Your task to perform on an android device: Open the stopwatch Image 0: 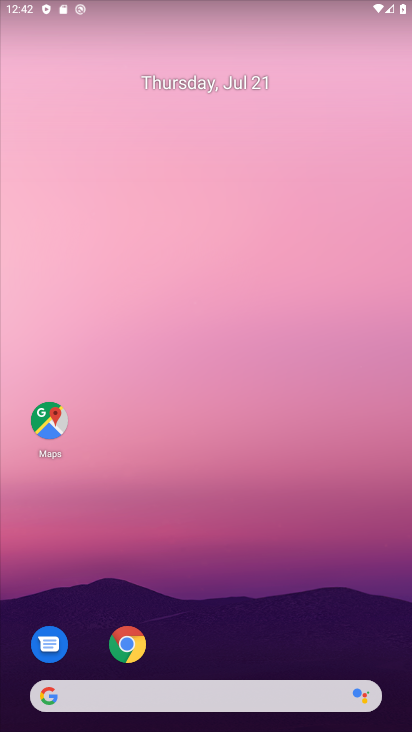
Step 0: drag from (192, 675) to (153, 97)
Your task to perform on an android device: Open the stopwatch Image 1: 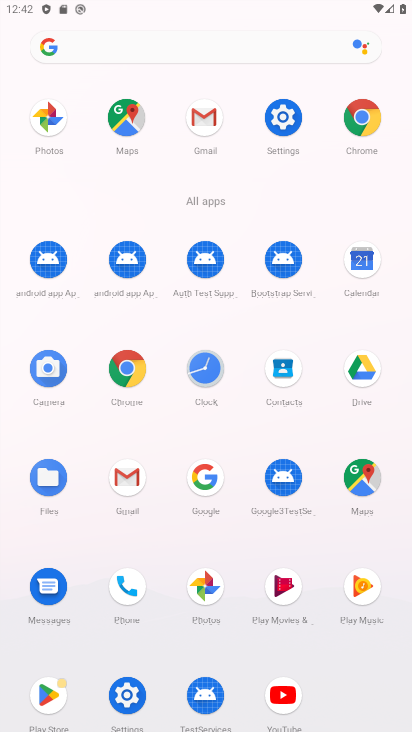
Step 1: click (206, 371)
Your task to perform on an android device: Open the stopwatch Image 2: 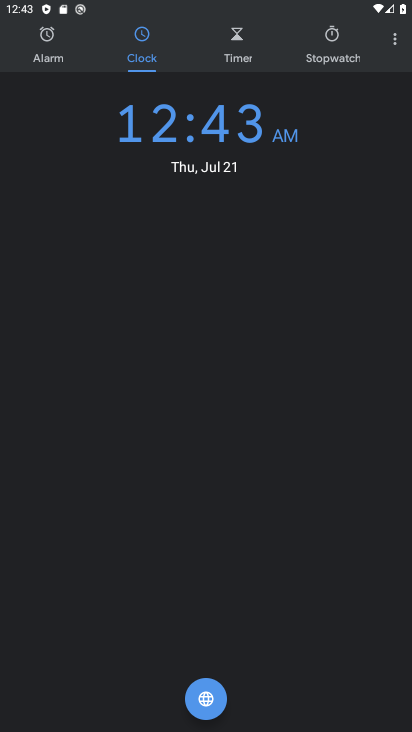
Step 2: click (319, 38)
Your task to perform on an android device: Open the stopwatch Image 3: 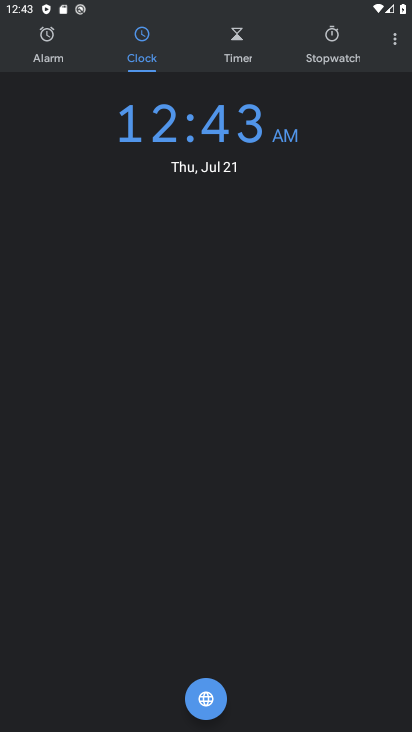
Step 3: click (334, 30)
Your task to perform on an android device: Open the stopwatch Image 4: 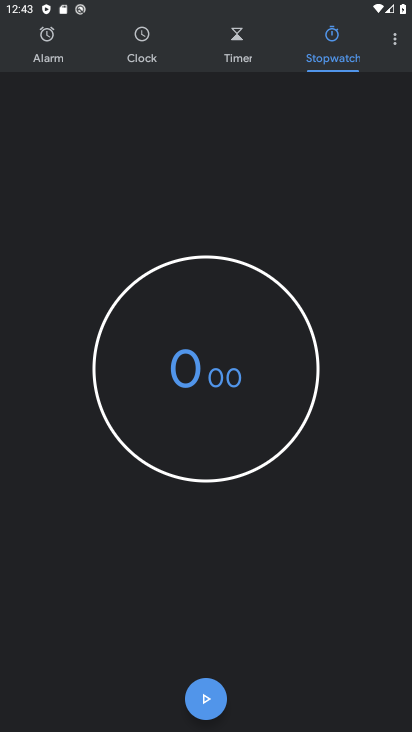
Step 4: task complete